Your task to perform on an android device: toggle javascript in the chrome app Image 0: 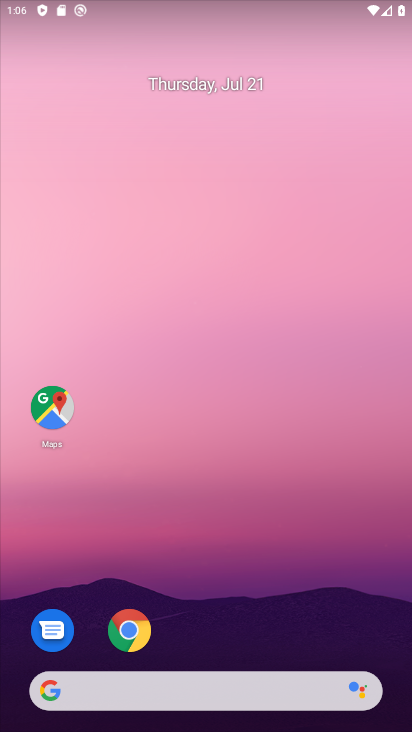
Step 0: click (130, 637)
Your task to perform on an android device: toggle javascript in the chrome app Image 1: 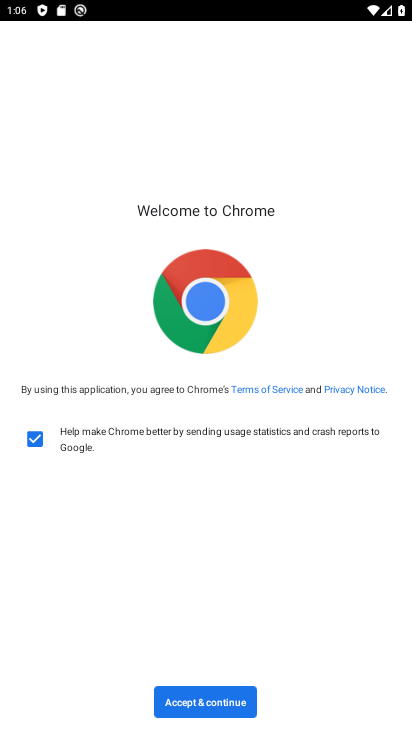
Step 1: click (219, 711)
Your task to perform on an android device: toggle javascript in the chrome app Image 2: 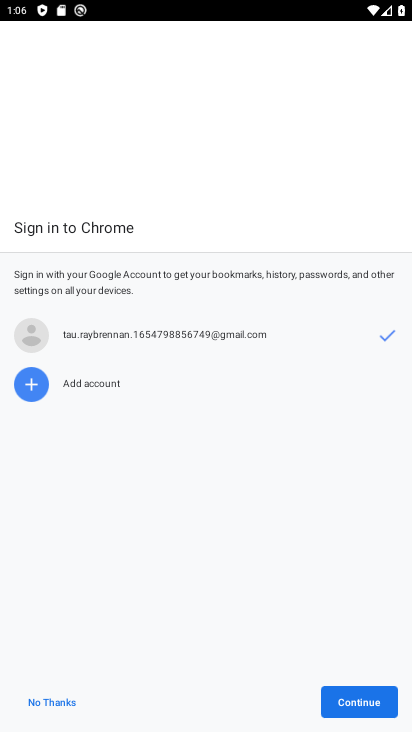
Step 2: click (369, 699)
Your task to perform on an android device: toggle javascript in the chrome app Image 3: 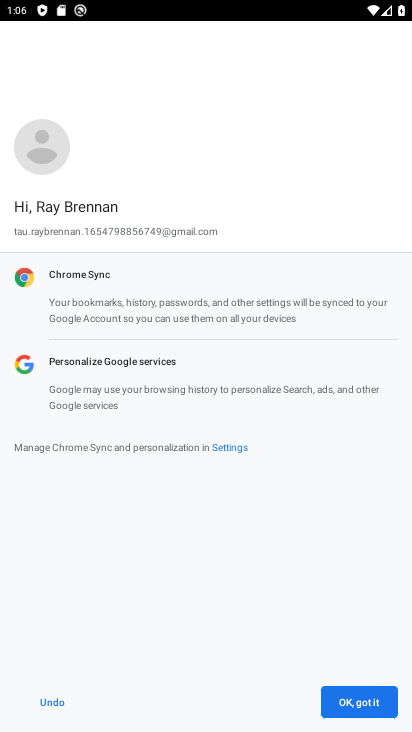
Step 3: click (360, 704)
Your task to perform on an android device: toggle javascript in the chrome app Image 4: 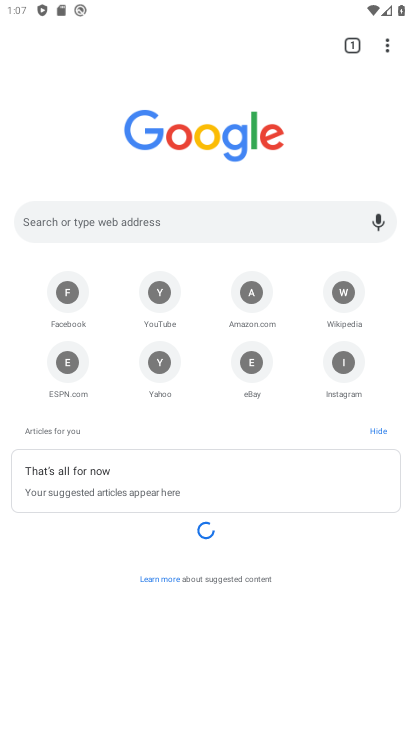
Step 4: click (385, 42)
Your task to perform on an android device: toggle javascript in the chrome app Image 5: 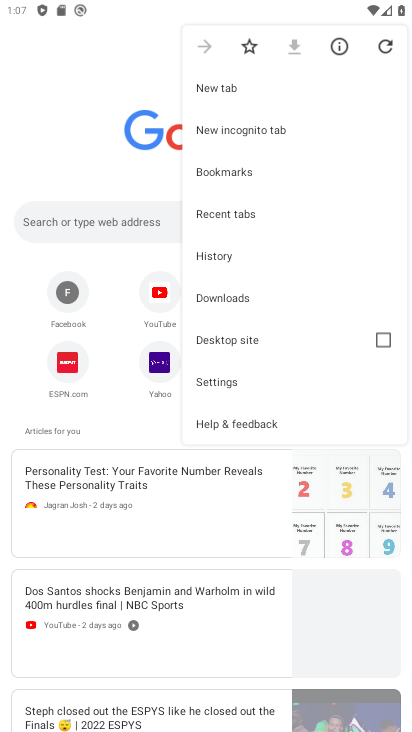
Step 5: click (237, 381)
Your task to perform on an android device: toggle javascript in the chrome app Image 6: 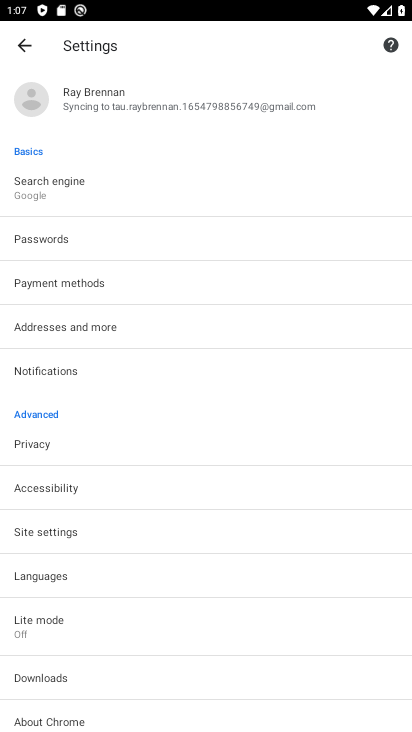
Step 6: click (80, 524)
Your task to perform on an android device: toggle javascript in the chrome app Image 7: 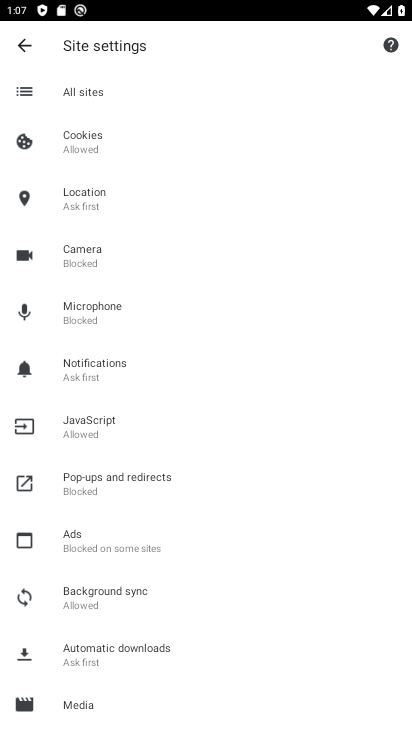
Step 7: click (126, 423)
Your task to perform on an android device: toggle javascript in the chrome app Image 8: 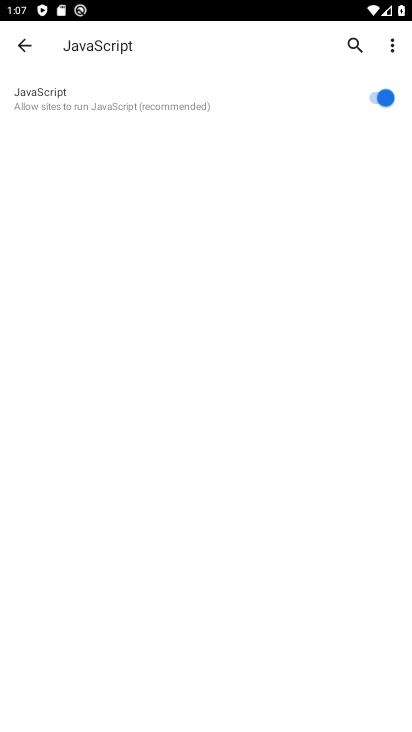
Step 8: click (367, 101)
Your task to perform on an android device: toggle javascript in the chrome app Image 9: 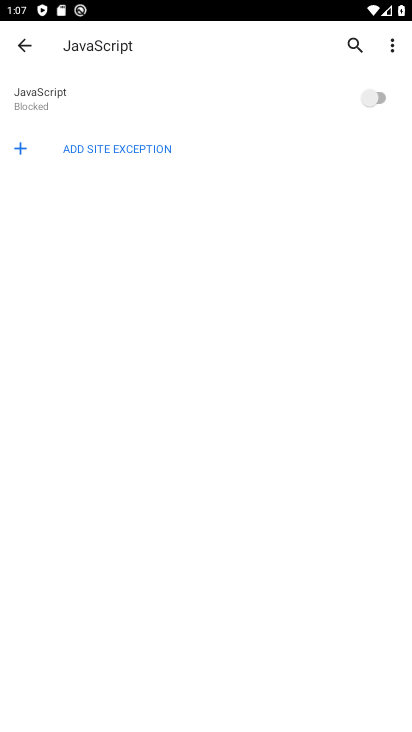
Step 9: task complete